Your task to perform on an android device: turn on translation in the chrome app Image 0: 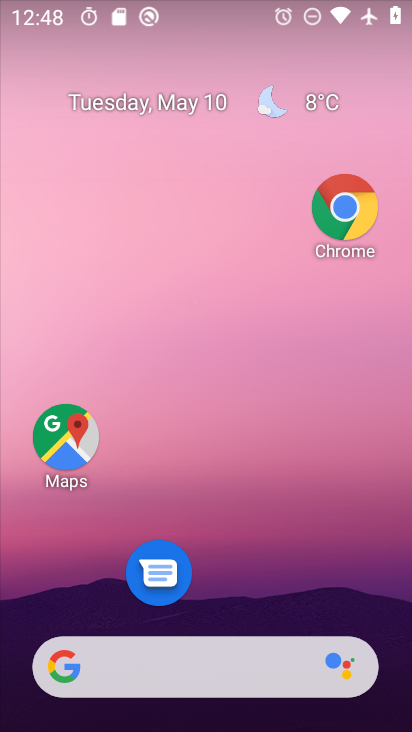
Step 0: click (329, 208)
Your task to perform on an android device: turn on translation in the chrome app Image 1: 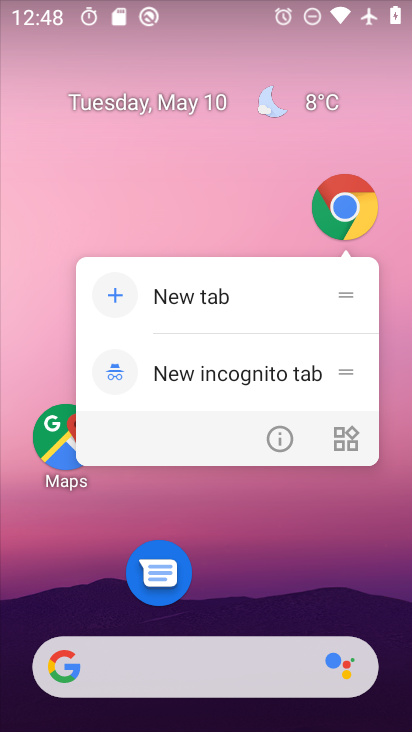
Step 1: click (351, 212)
Your task to perform on an android device: turn on translation in the chrome app Image 2: 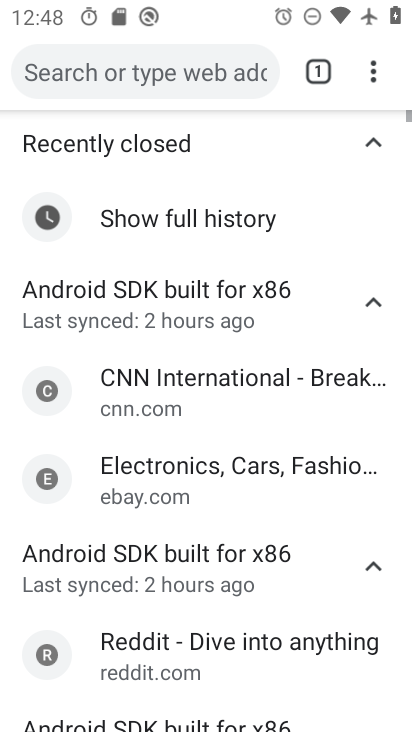
Step 2: drag from (378, 71) to (249, 612)
Your task to perform on an android device: turn on translation in the chrome app Image 3: 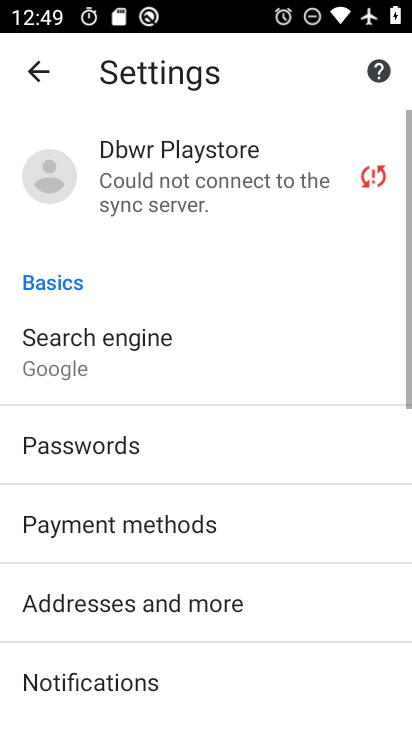
Step 3: drag from (242, 594) to (223, 89)
Your task to perform on an android device: turn on translation in the chrome app Image 4: 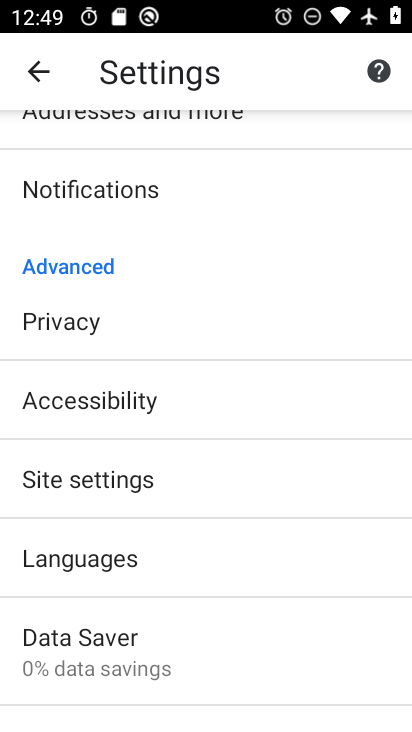
Step 4: click (127, 560)
Your task to perform on an android device: turn on translation in the chrome app Image 5: 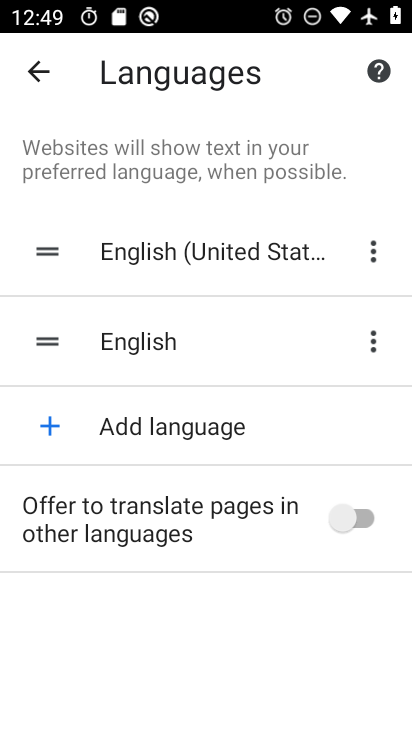
Step 5: click (358, 517)
Your task to perform on an android device: turn on translation in the chrome app Image 6: 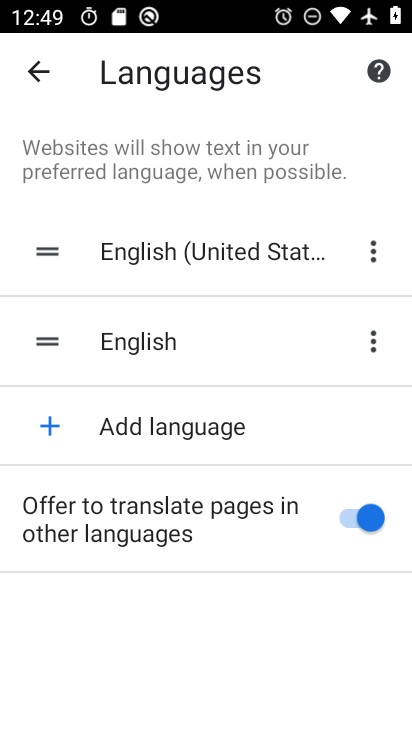
Step 6: task complete